Your task to perform on an android device: turn off sleep mode Image 0: 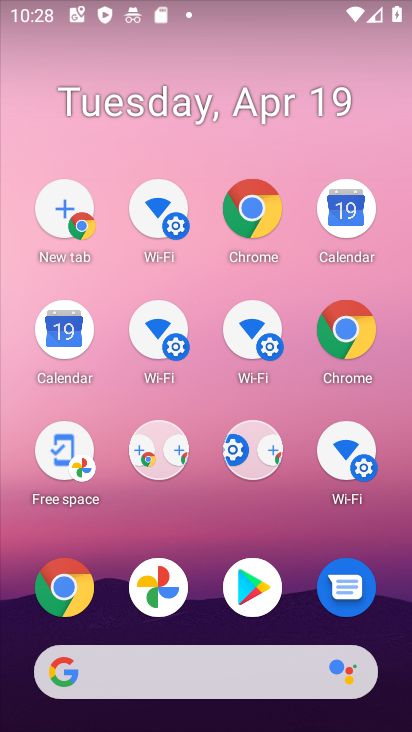
Step 0: drag from (139, 338) to (75, 114)
Your task to perform on an android device: turn off sleep mode Image 1: 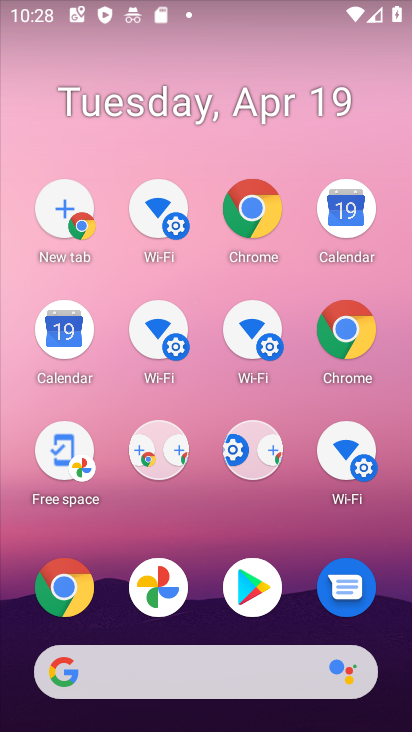
Step 1: drag from (218, 340) to (257, 143)
Your task to perform on an android device: turn off sleep mode Image 2: 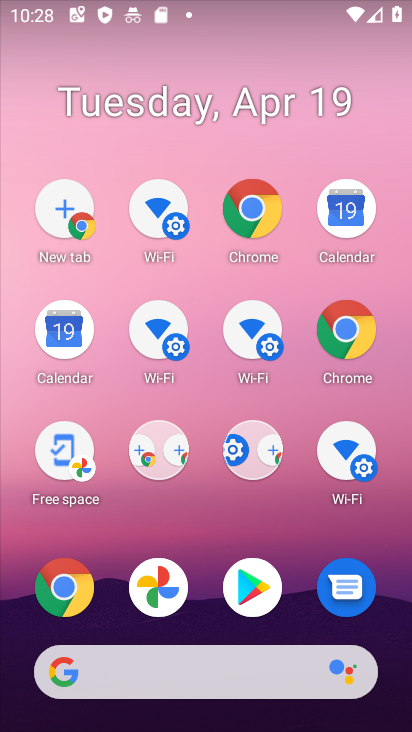
Step 2: drag from (173, 167) to (167, 107)
Your task to perform on an android device: turn off sleep mode Image 3: 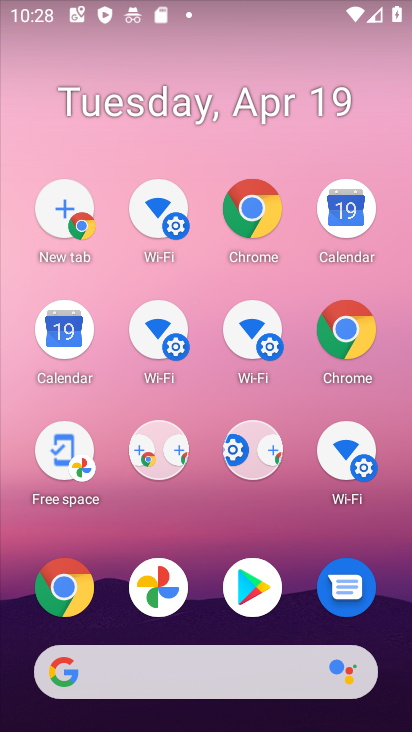
Step 3: click (360, 589)
Your task to perform on an android device: turn off sleep mode Image 4: 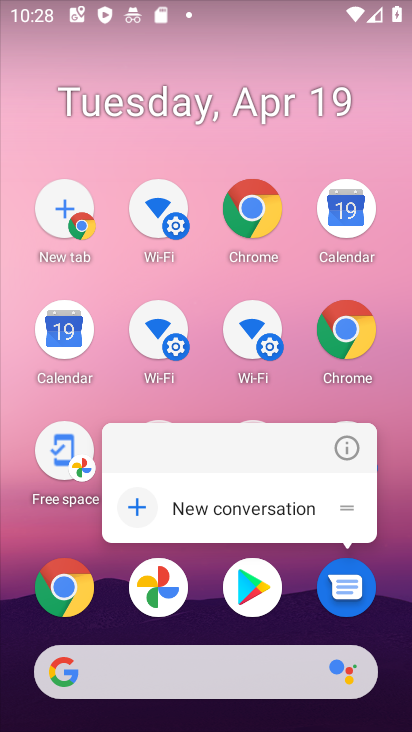
Step 4: task complete